Your task to perform on an android device: Go to notification settings Image 0: 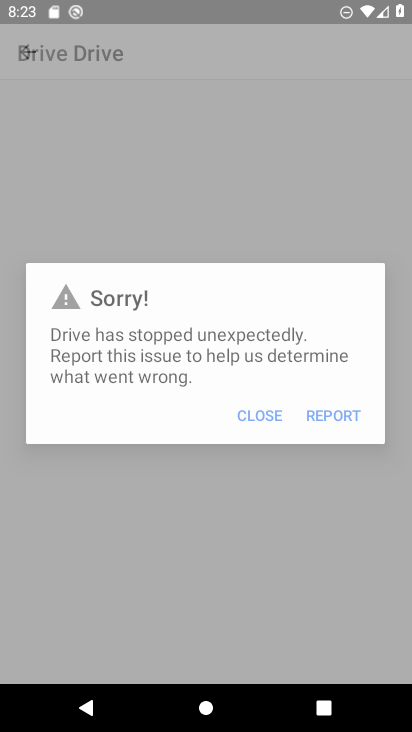
Step 0: drag from (240, 620) to (236, 121)
Your task to perform on an android device: Go to notification settings Image 1: 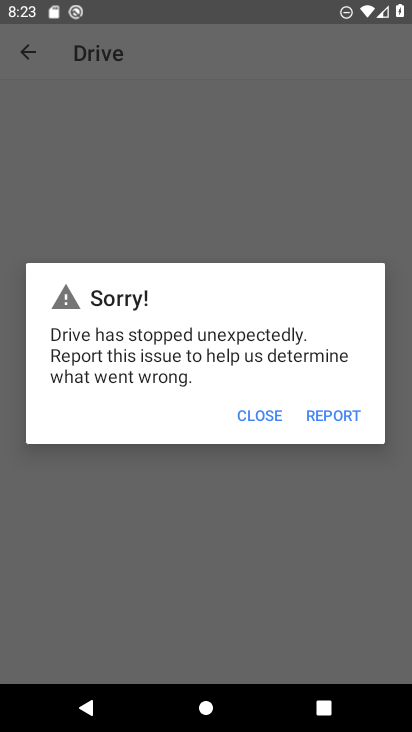
Step 1: press home button
Your task to perform on an android device: Go to notification settings Image 2: 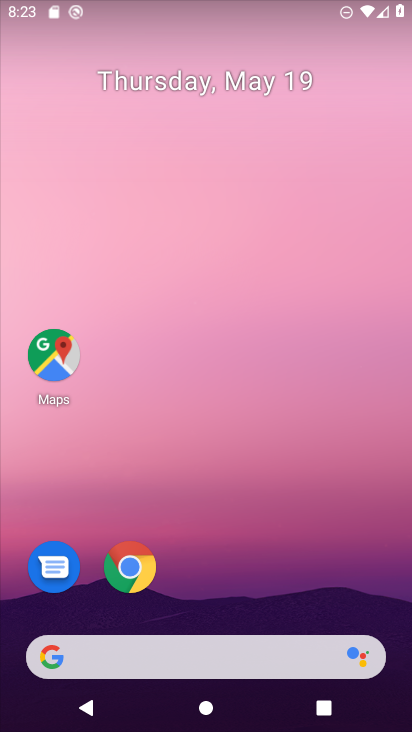
Step 2: drag from (203, 603) to (183, 144)
Your task to perform on an android device: Go to notification settings Image 3: 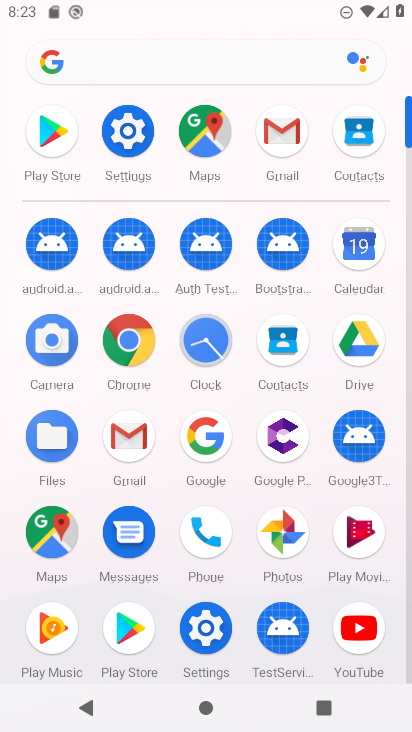
Step 3: click (124, 138)
Your task to perform on an android device: Go to notification settings Image 4: 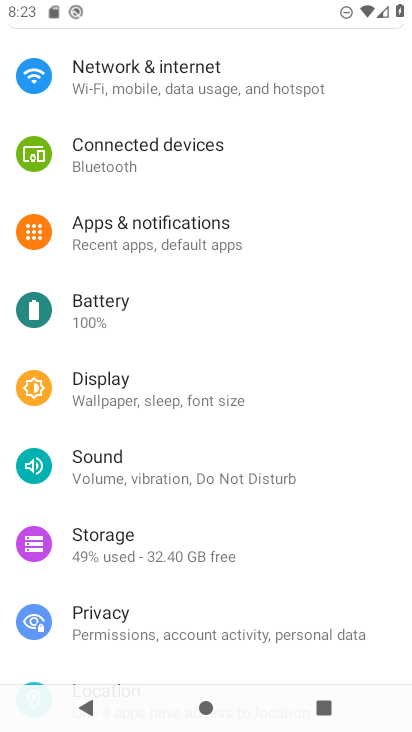
Step 4: click (135, 248)
Your task to perform on an android device: Go to notification settings Image 5: 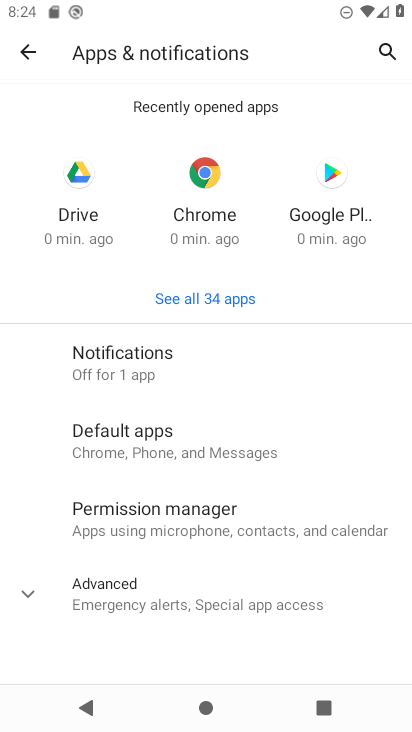
Step 5: task complete